Your task to perform on an android device: Open settings on Google Maps Image 0: 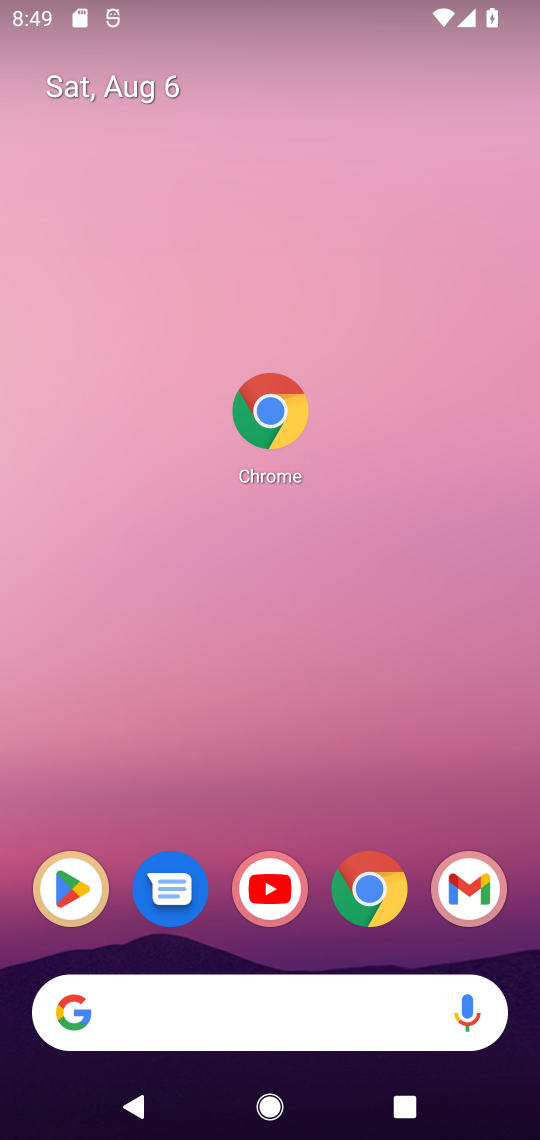
Step 0: drag from (311, 990) to (188, 289)
Your task to perform on an android device: Open settings on Google Maps Image 1: 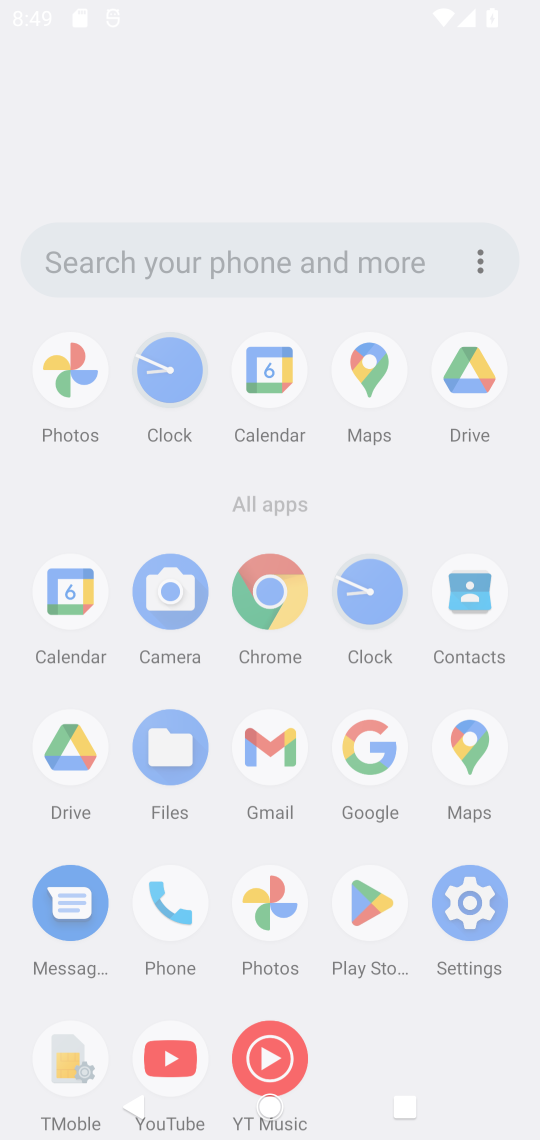
Step 1: drag from (254, 611) to (132, 248)
Your task to perform on an android device: Open settings on Google Maps Image 2: 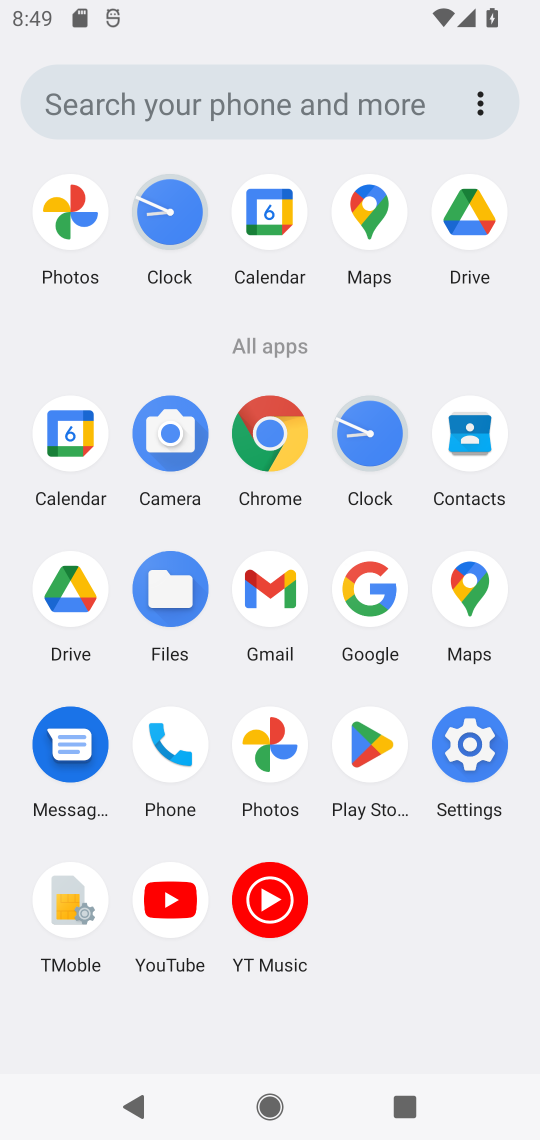
Step 2: click (453, 576)
Your task to perform on an android device: Open settings on Google Maps Image 3: 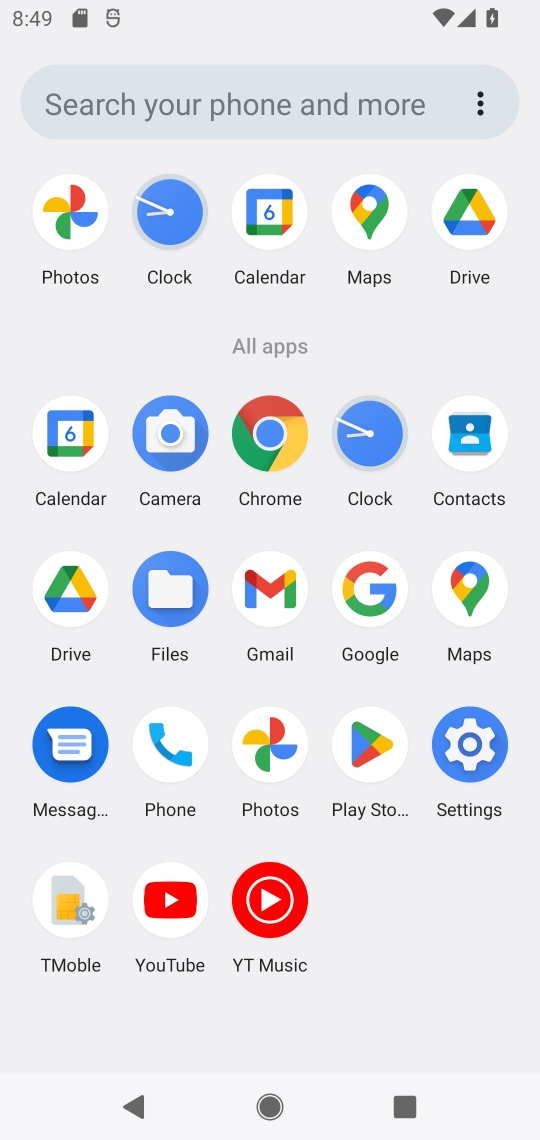
Step 3: click (457, 572)
Your task to perform on an android device: Open settings on Google Maps Image 4: 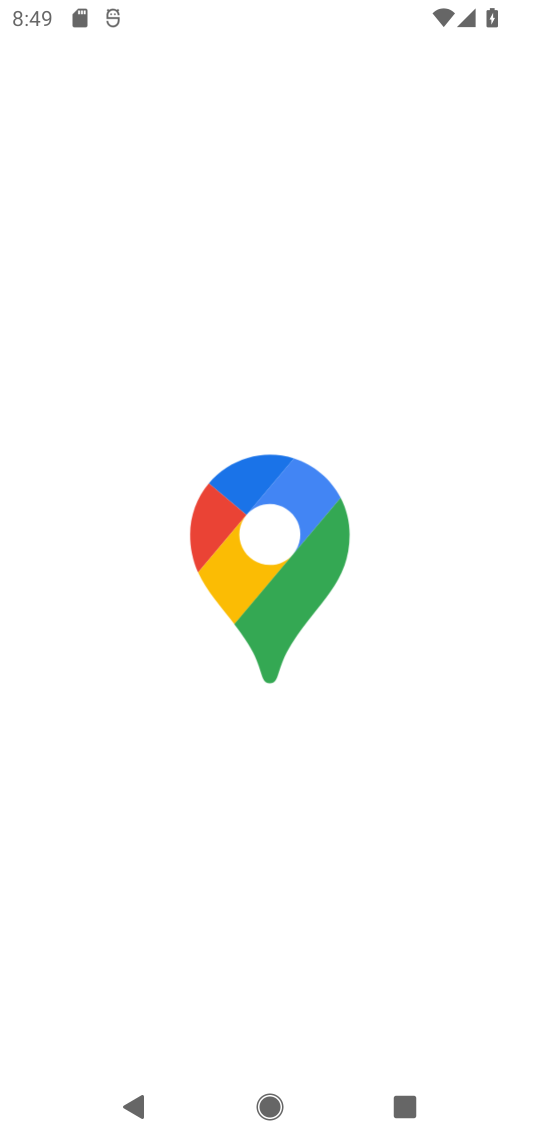
Step 4: click (243, 502)
Your task to perform on an android device: Open settings on Google Maps Image 5: 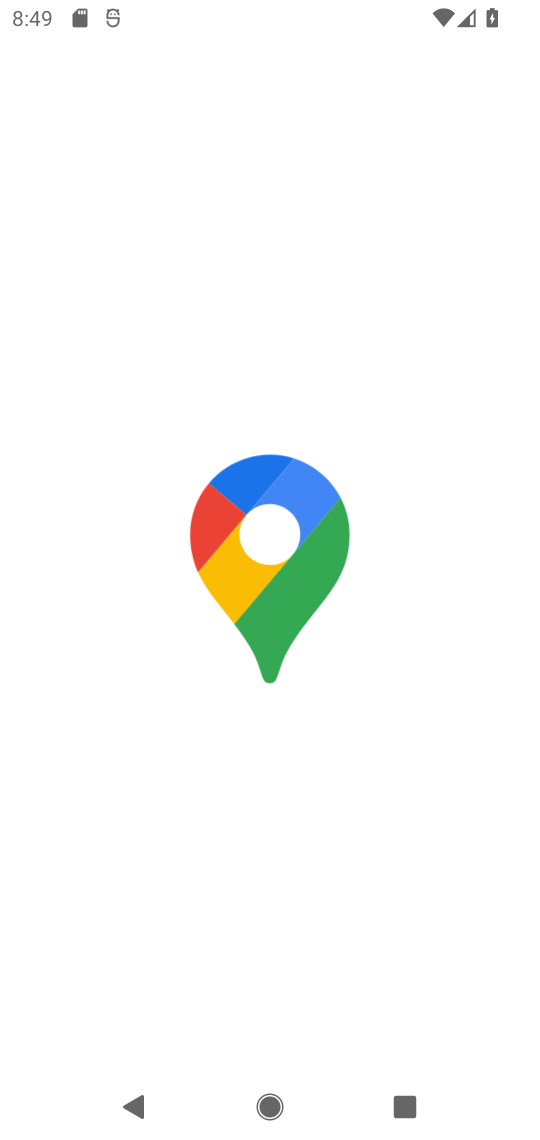
Step 5: drag from (285, 818) to (212, 475)
Your task to perform on an android device: Open settings on Google Maps Image 6: 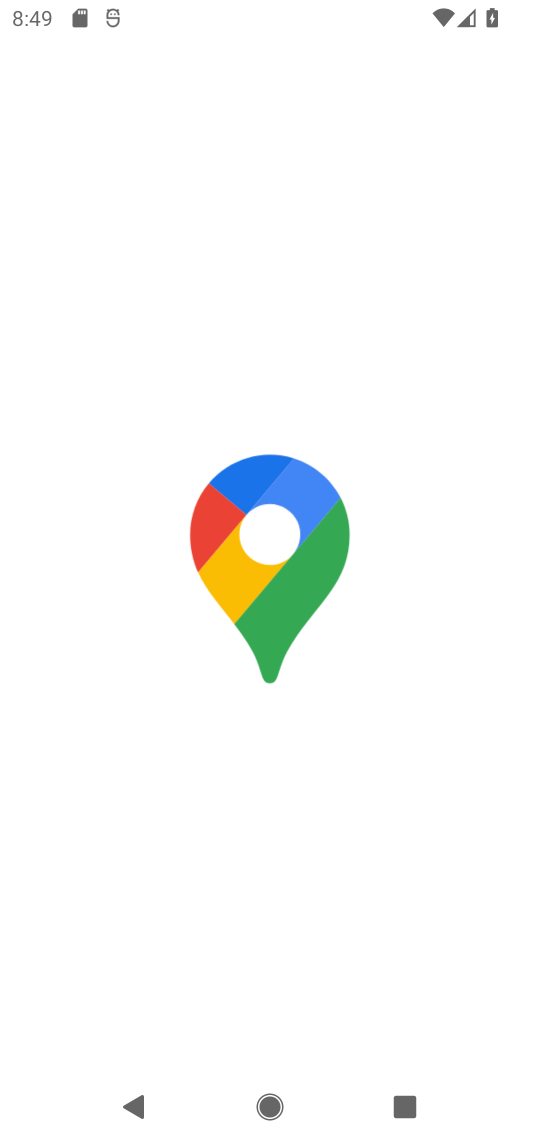
Step 6: drag from (266, 821) to (284, 512)
Your task to perform on an android device: Open settings on Google Maps Image 7: 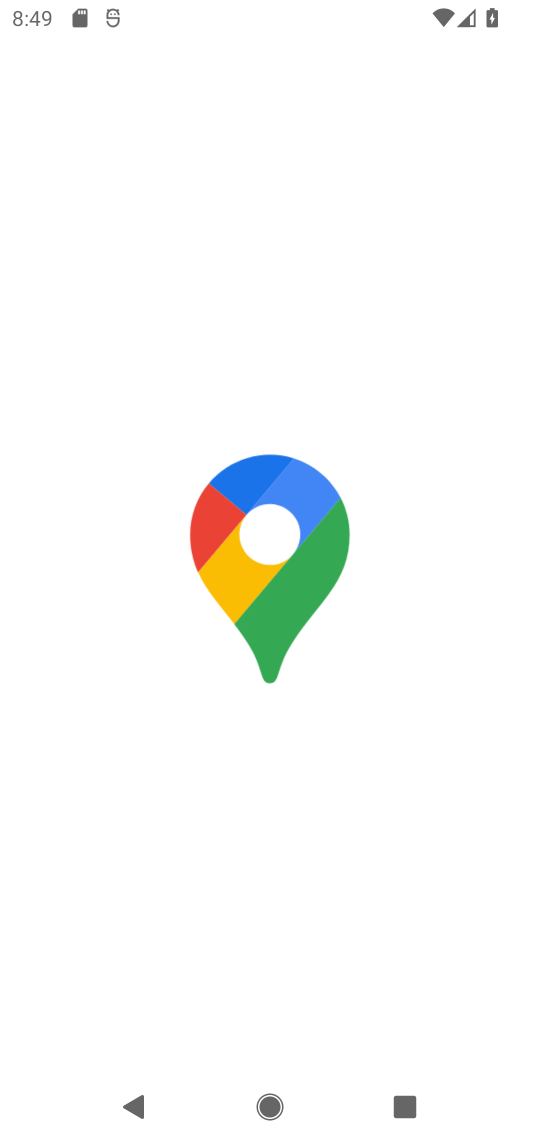
Step 7: click (286, 491)
Your task to perform on an android device: Open settings on Google Maps Image 8: 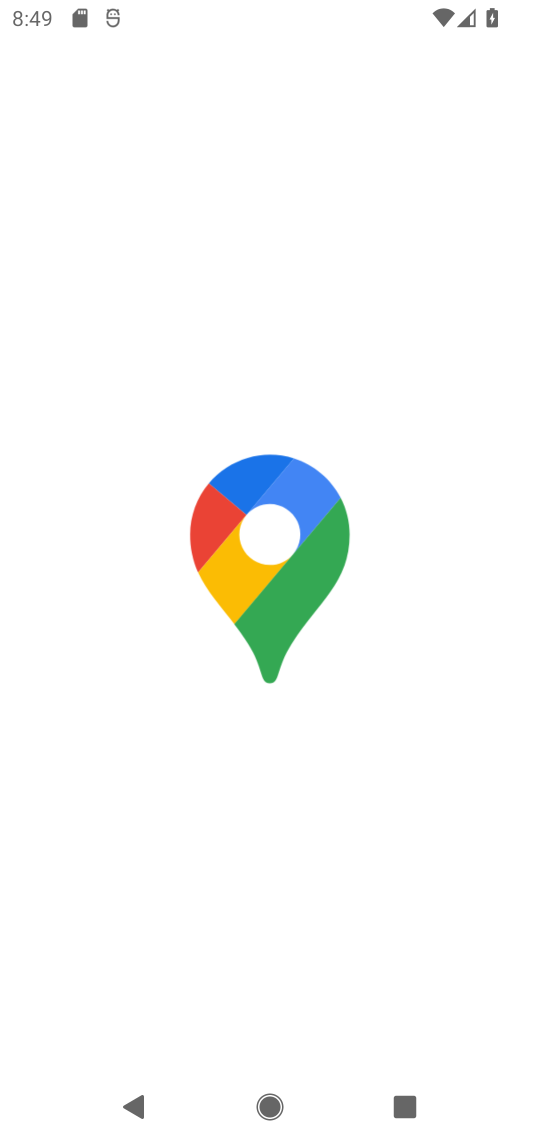
Step 8: click (286, 502)
Your task to perform on an android device: Open settings on Google Maps Image 9: 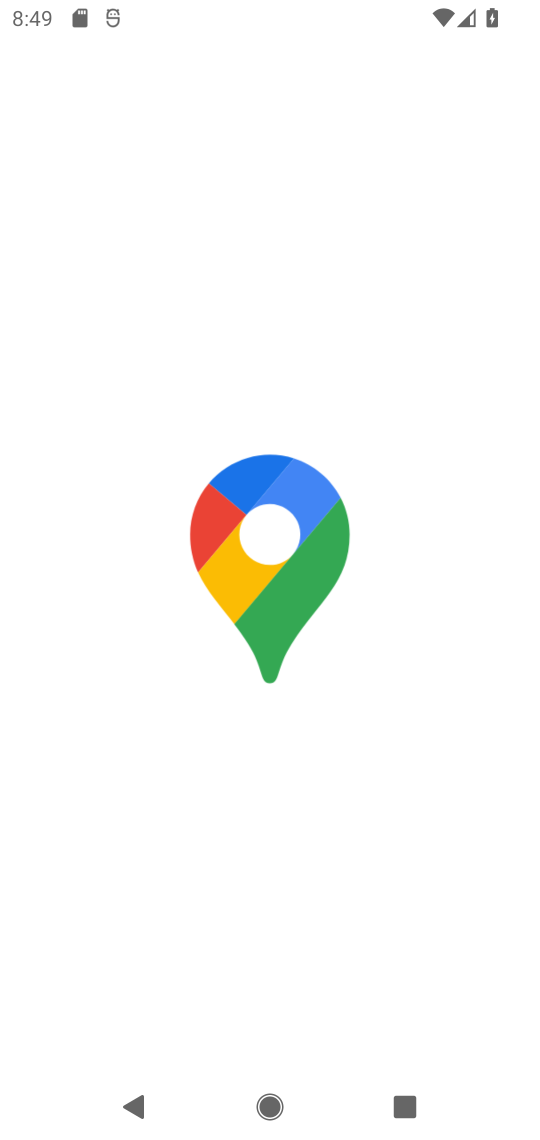
Step 9: click (259, 533)
Your task to perform on an android device: Open settings on Google Maps Image 10: 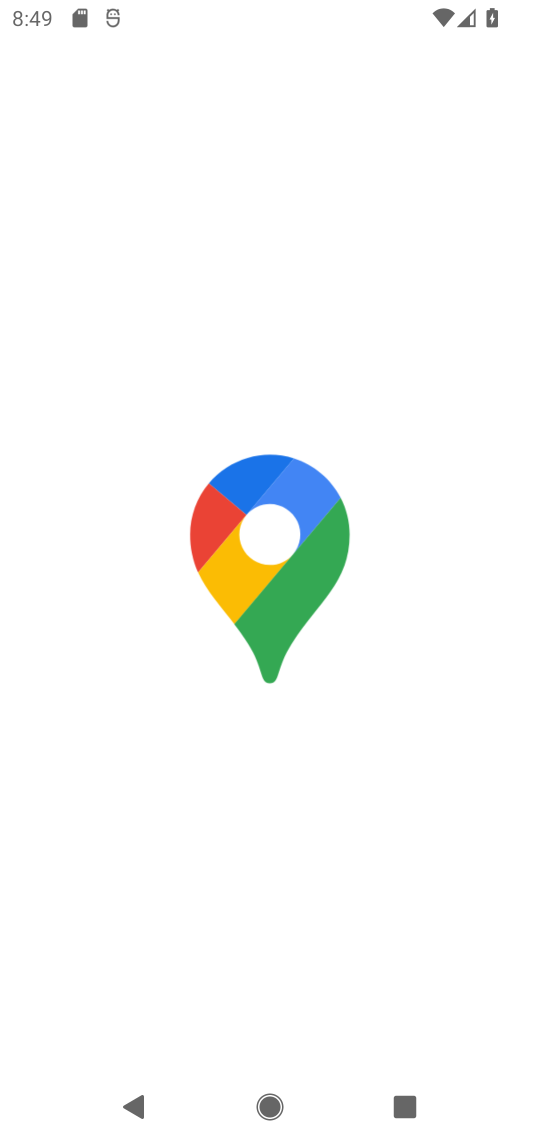
Step 10: click (263, 533)
Your task to perform on an android device: Open settings on Google Maps Image 11: 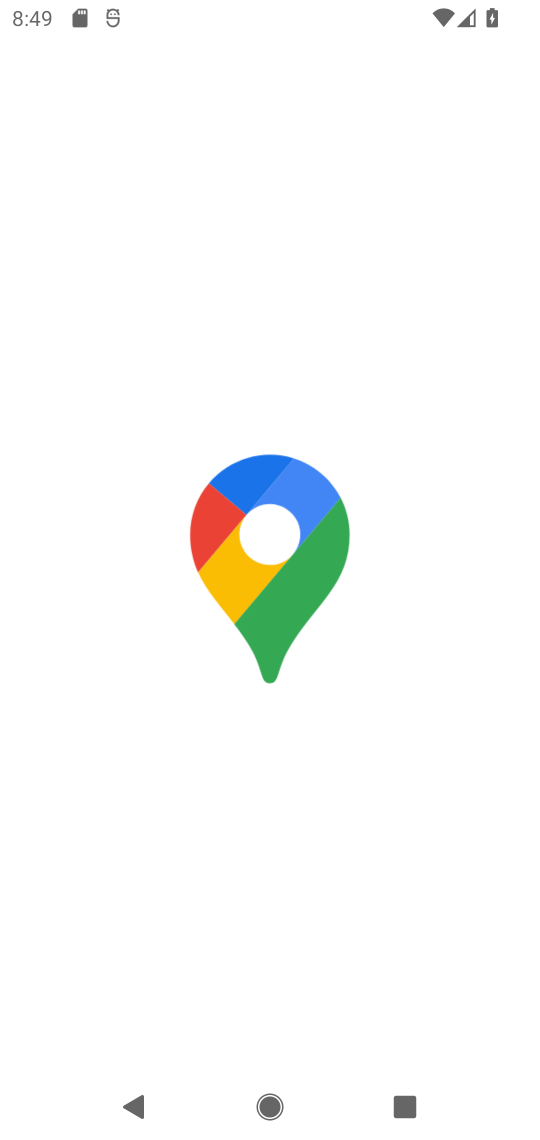
Step 11: click (263, 533)
Your task to perform on an android device: Open settings on Google Maps Image 12: 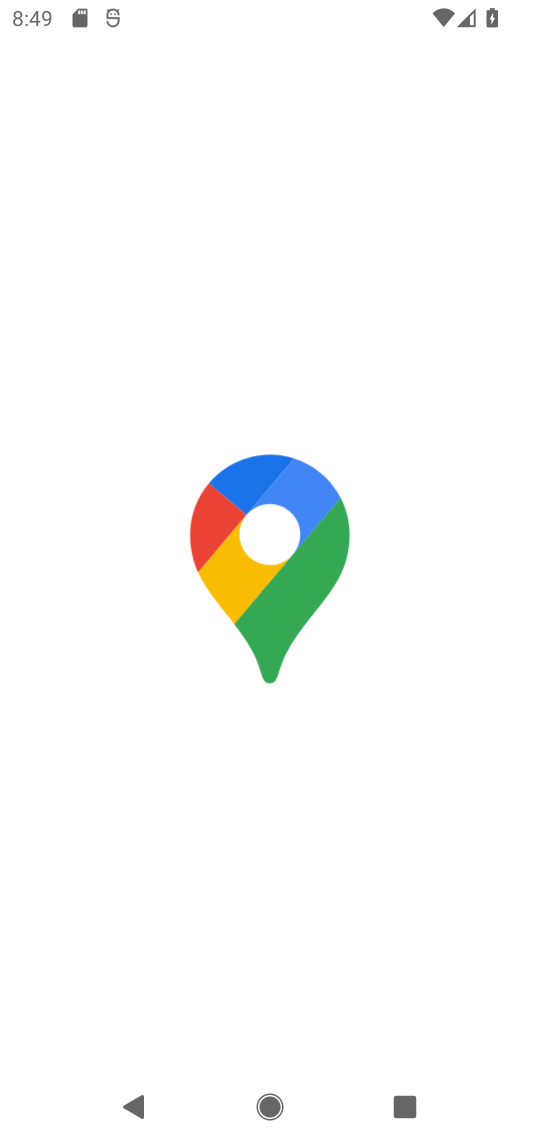
Step 12: click (269, 536)
Your task to perform on an android device: Open settings on Google Maps Image 13: 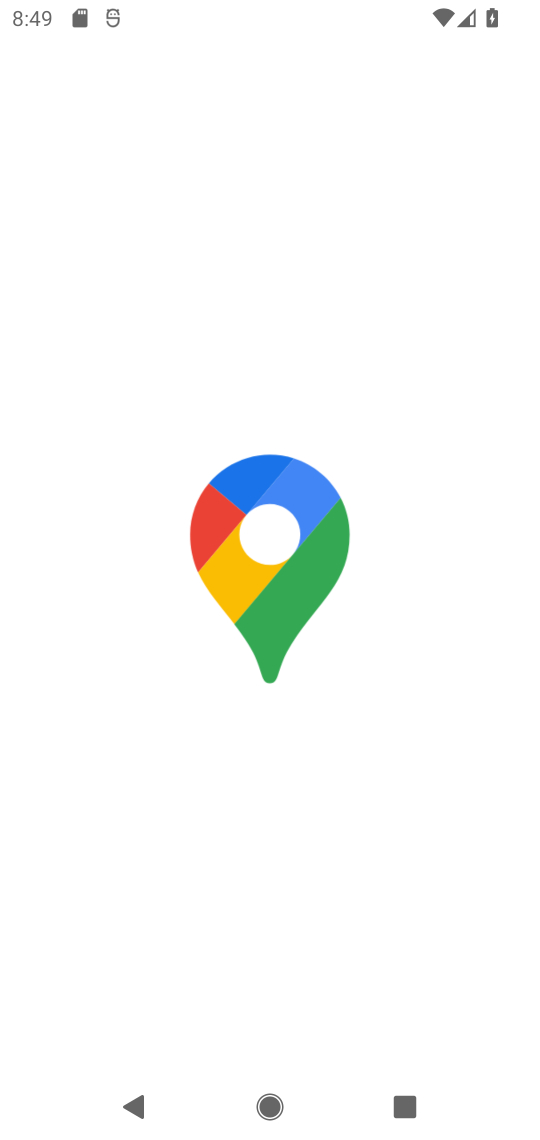
Step 13: click (269, 536)
Your task to perform on an android device: Open settings on Google Maps Image 14: 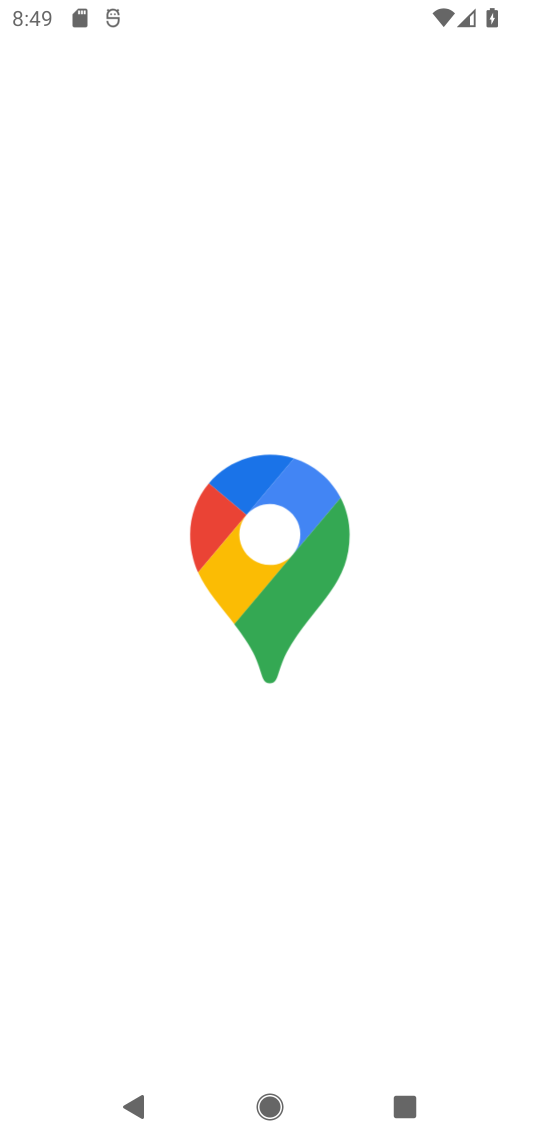
Step 14: click (269, 536)
Your task to perform on an android device: Open settings on Google Maps Image 15: 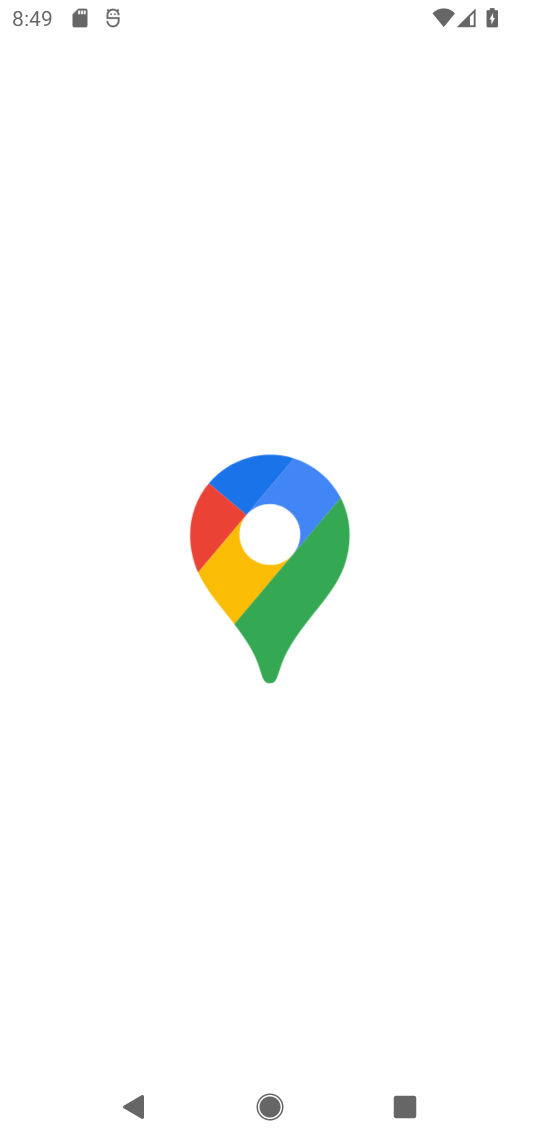
Step 15: click (288, 523)
Your task to perform on an android device: Open settings on Google Maps Image 16: 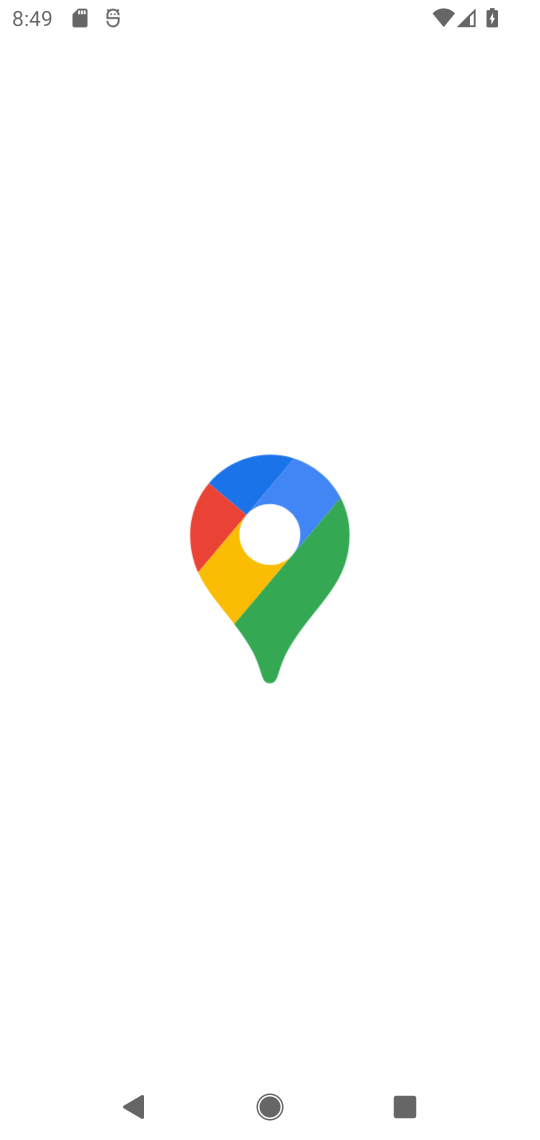
Step 16: drag from (300, 573) to (203, 359)
Your task to perform on an android device: Open settings on Google Maps Image 17: 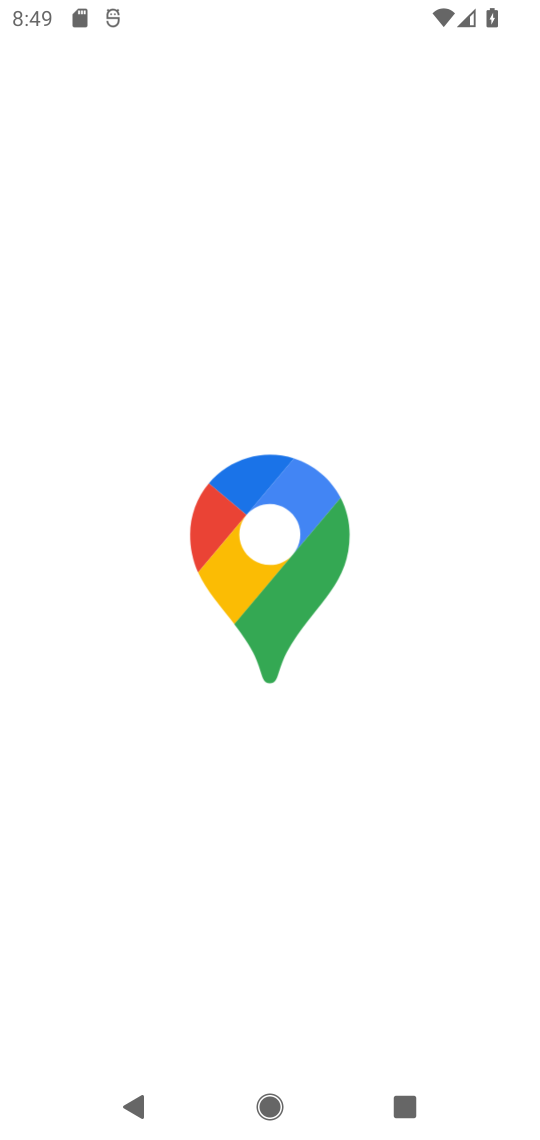
Step 17: click (276, 552)
Your task to perform on an android device: Open settings on Google Maps Image 18: 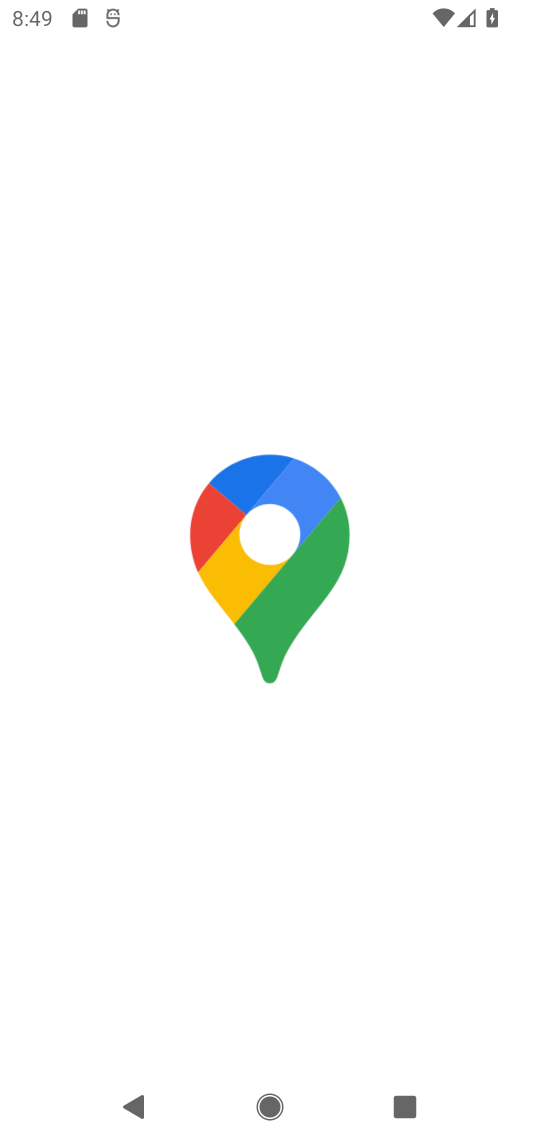
Step 18: task complete